Your task to perform on an android device: turn on the 12-hour format for clock Image 0: 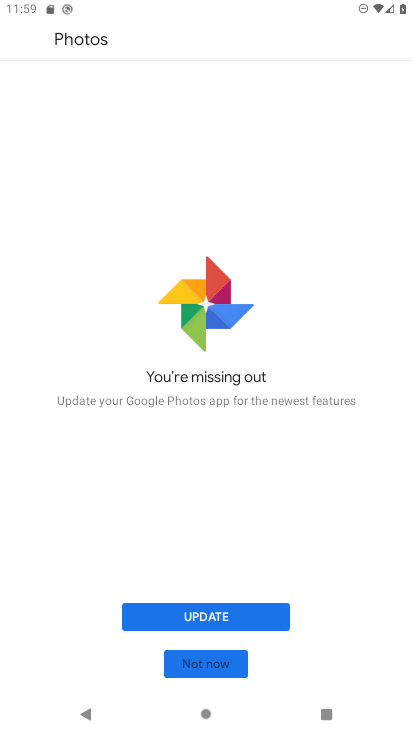
Step 0: press home button
Your task to perform on an android device: turn on the 12-hour format for clock Image 1: 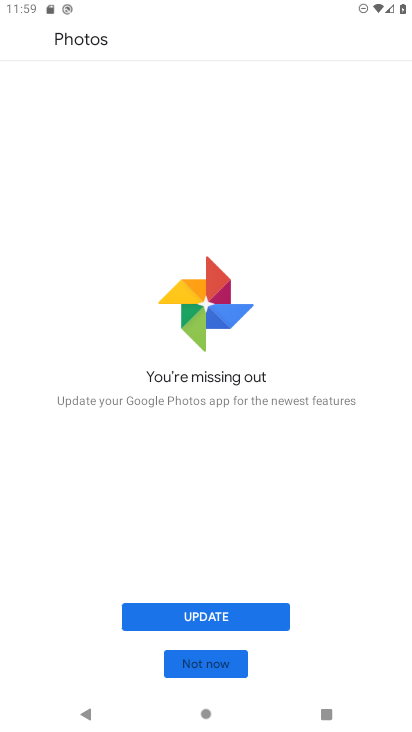
Step 1: press home button
Your task to perform on an android device: turn on the 12-hour format for clock Image 2: 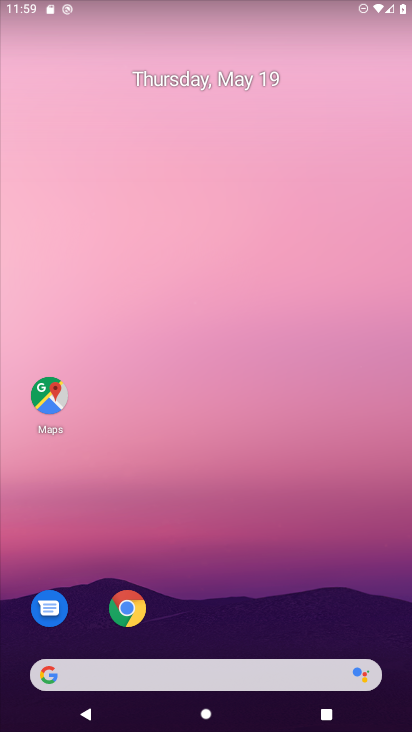
Step 2: drag from (243, 616) to (256, 104)
Your task to perform on an android device: turn on the 12-hour format for clock Image 3: 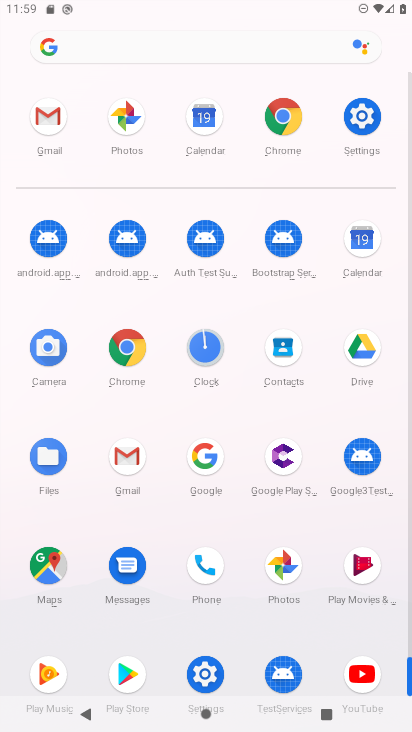
Step 3: click (205, 354)
Your task to perform on an android device: turn on the 12-hour format for clock Image 4: 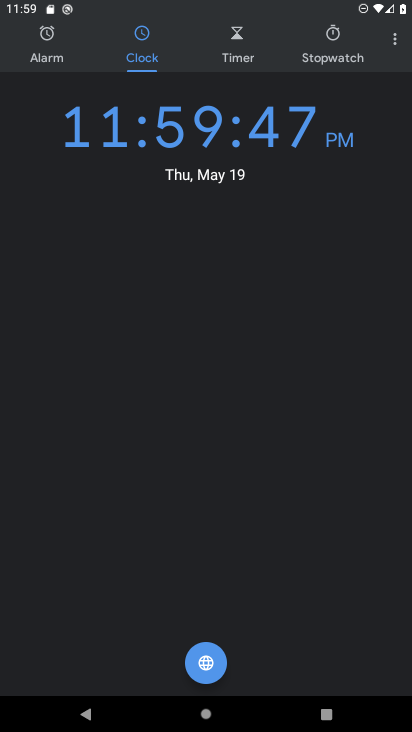
Step 4: click (394, 48)
Your task to perform on an android device: turn on the 12-hour format for clock Image 5: 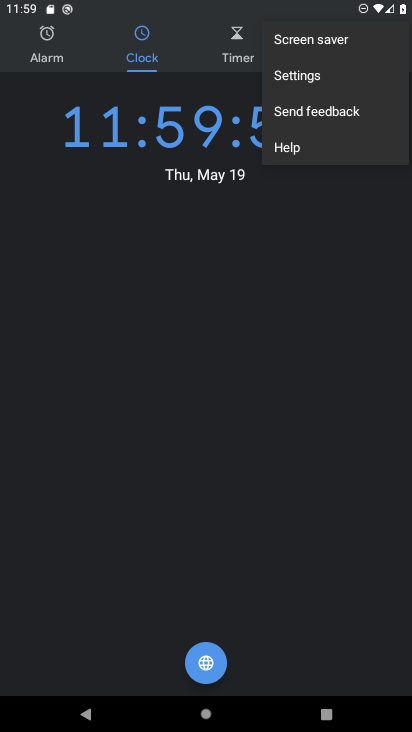
Step 5: click (322, 77)
Your task to perform on an android device: turn on the 12-hour format for clock Image 6: 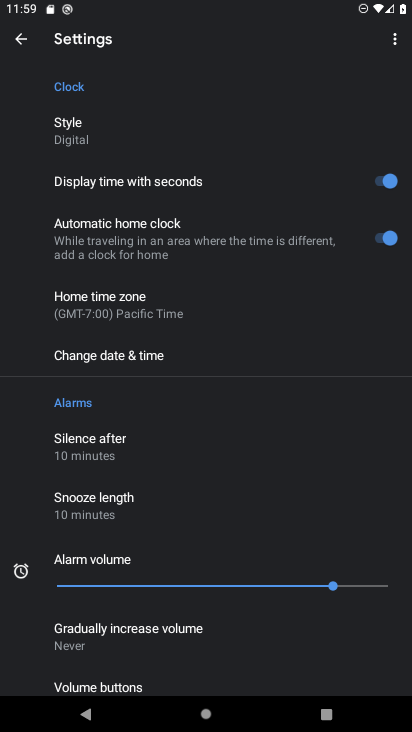
Step 6: click (115, 362)
Your task to perform on an android device: turn on the 12-hour format for clock Image 7: 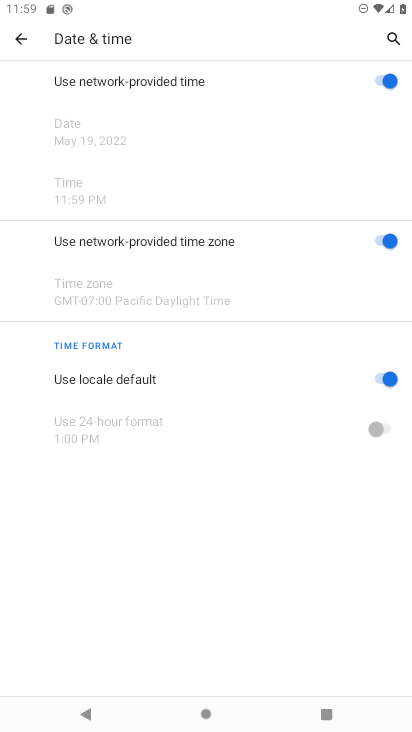
Step 7: click (377, 376)
Your task to perform on an android device: turn on the 12-hour format for clock Image 8: 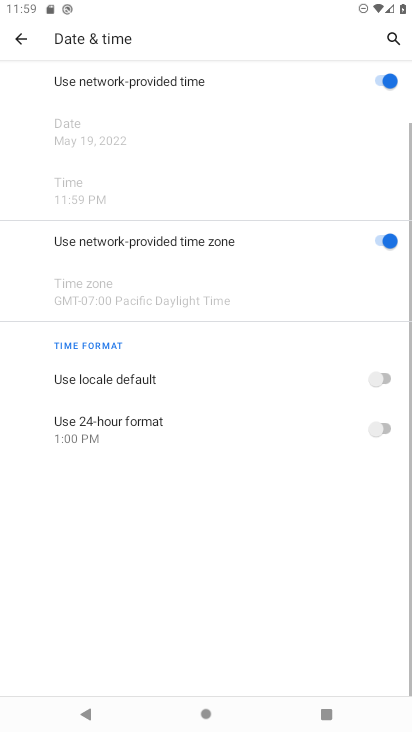
Step 8: click (373, 426)
Your task to perform on an android device: turn on the 12-hour format for clock Image 9: 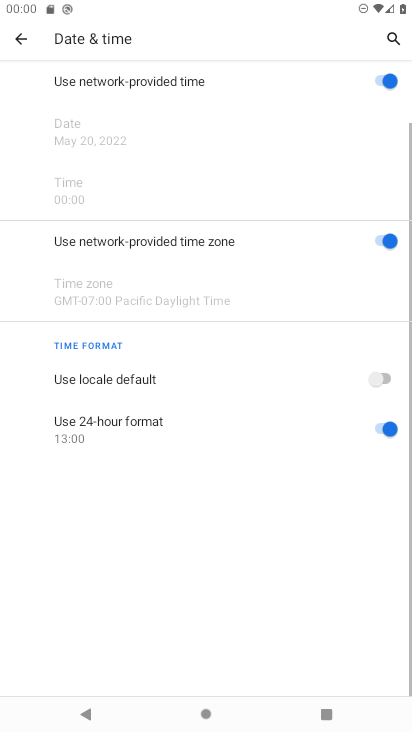
Step 9: task complete